Your task to perform on an android device: Open calendar and show me the second week of next month Image 0: 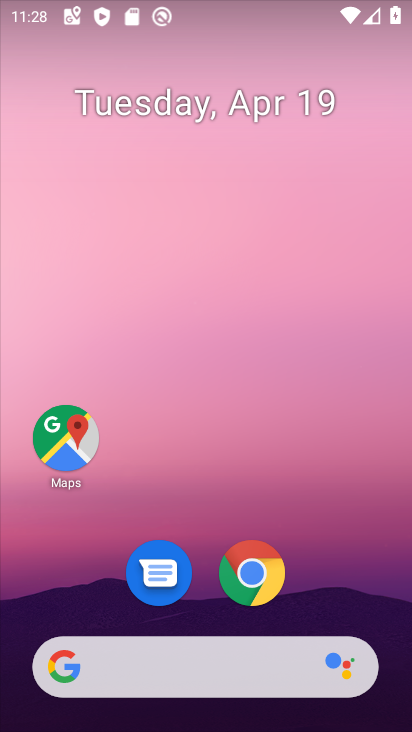
Step 0: drag from (322, 487) to (332, 143)
Your task to perform on an android device: Open calendar and show me the second week of next month Image 1: 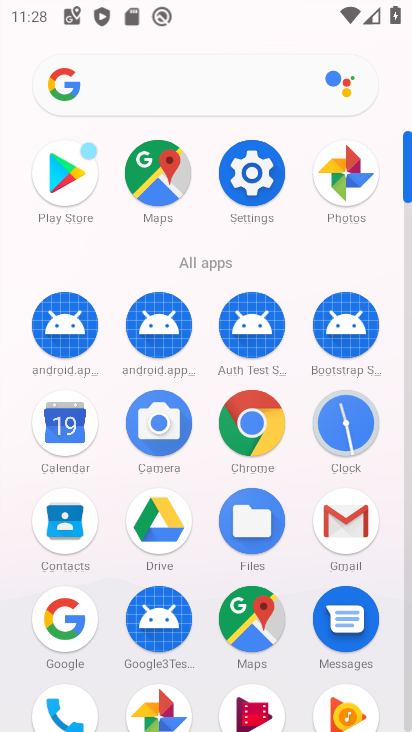
Step 1: click (73, 438)
Your task to perform on an android device: Open calendar and show me the second week of next month Image 2: 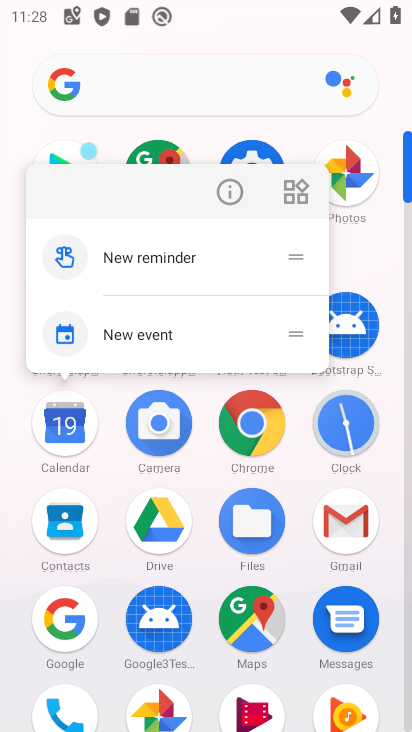
Step 2: click (79, 444)
Your task to perform on an android device: Open calendar and show me the second week of next month Image 3: 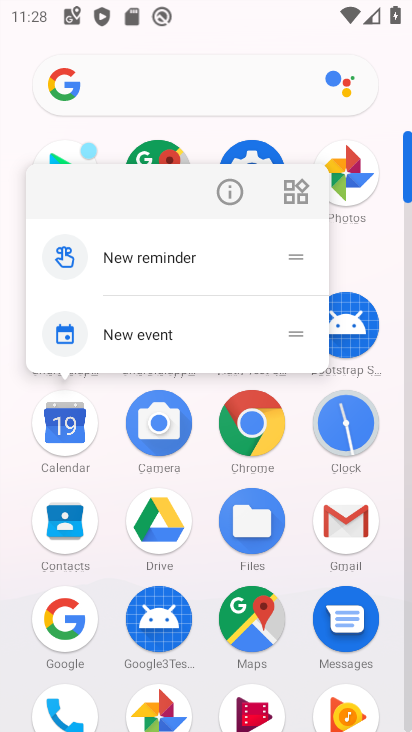
Step 3: click (58, 425)
Your task to perform on an android device: Open calendar and show me the second week of next month Image 4: 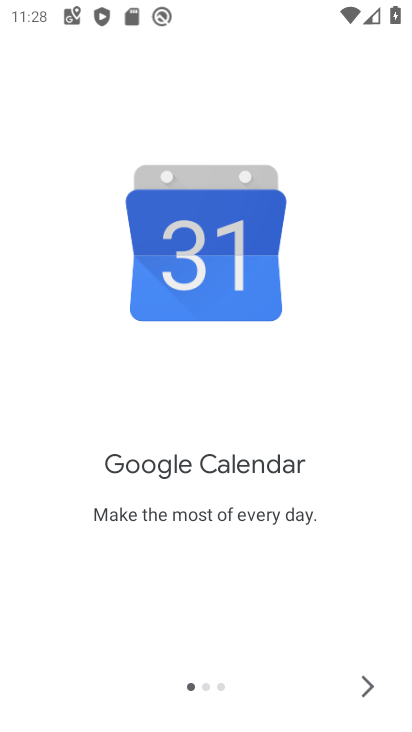
Step 4: click (369, 696)
Your task to perform on an android device: Open calendar and show me the second week of next month Image 5: 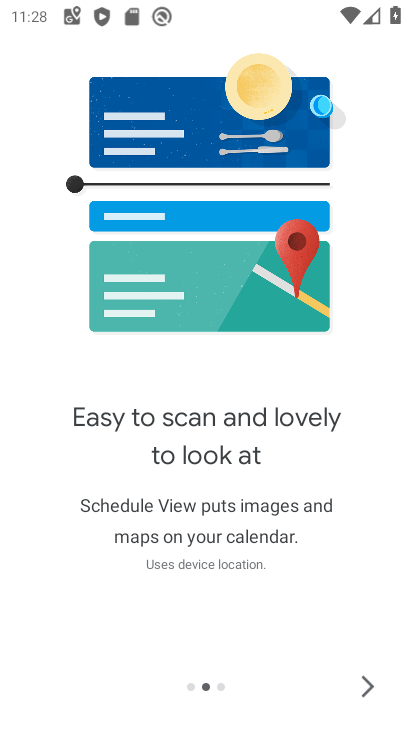
Step 5: click (369, 696)
Your task to perform on an android device: Open calendar and show me the second week of next month Image 6: 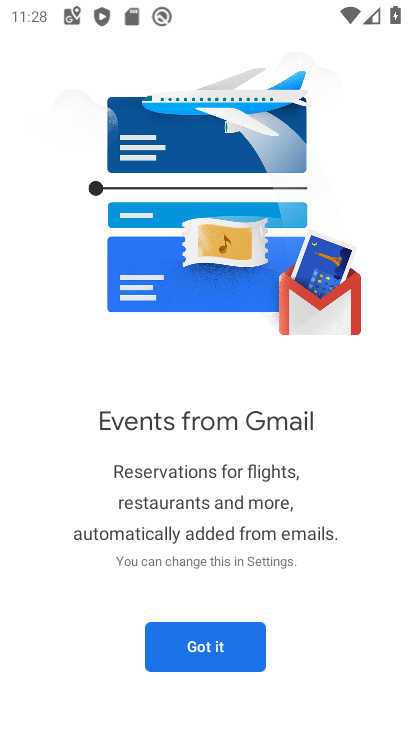
Step 6: click (239, 655)
Your task to perform on an android device: Open calendar and show me the second week of next month Image 7: 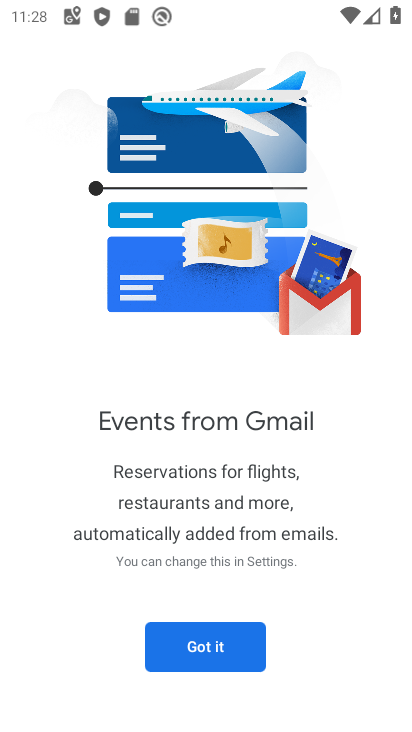
Step 7: click (214, 668)
Your task to perform on an android device: Open calendar and show me the second week of next month Image 8: 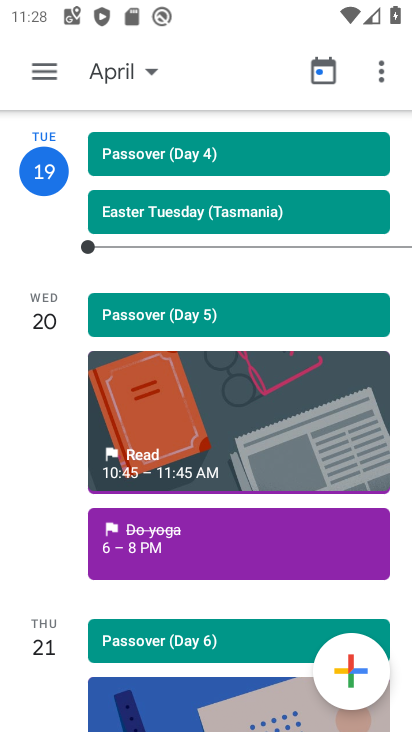
Step 8: click (122, 77)
Your task to perform on an android device: Open calendar and show me the second week of next month Image 9: 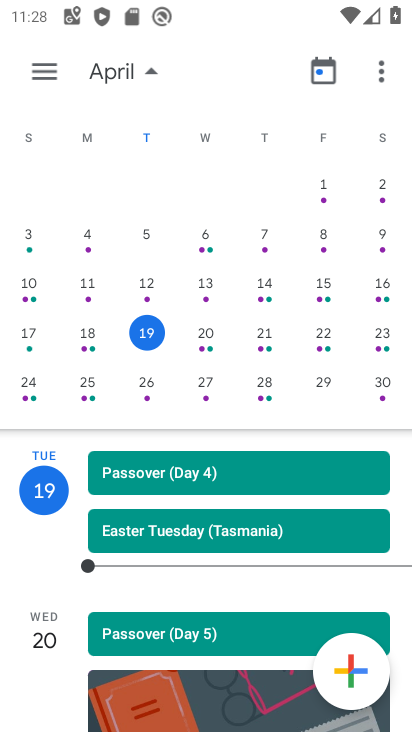
Step 9: drag from (366, 335) to (3, 271)
Your task to perform on an android device: Open calendar and show me the second week of next month Image 10: 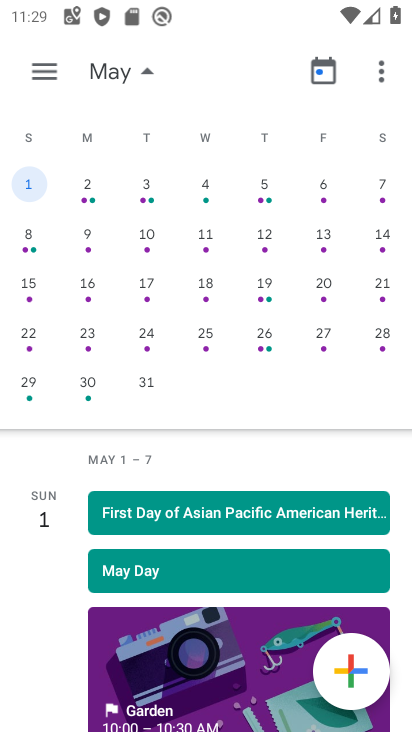
Step 10: click (38, 245)
Your task to perform on an android device: Open calendar and show me the second week of next month Image 11: 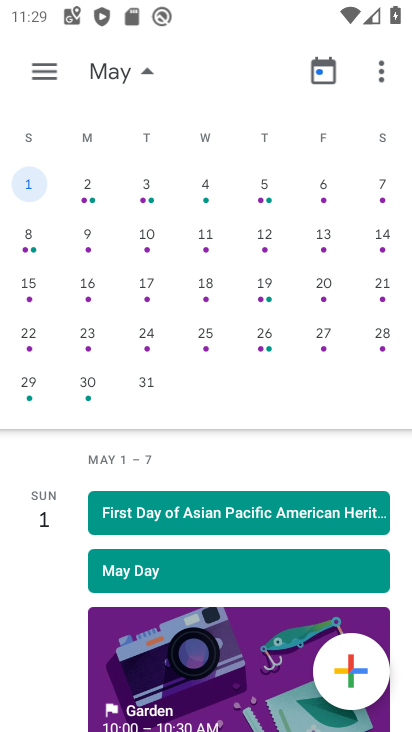
Step 11: click (86, 252)
Your task to perform on an android device: Open calendar and show me the second week of next month Image 12: 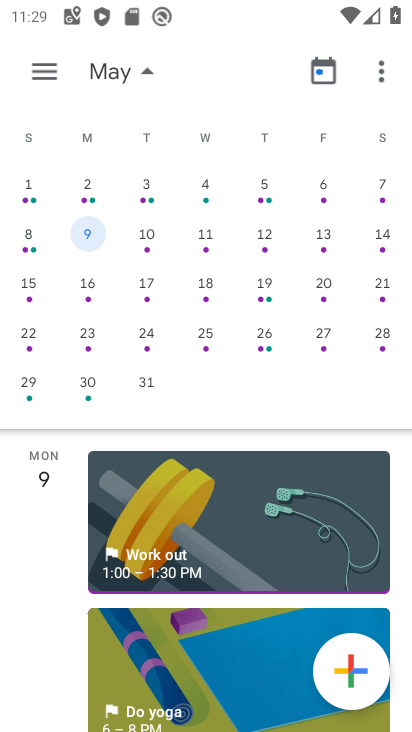
Step 12: click (155, 250)
Your task to perform on an android device: Open calendar and show me the second week of next month Image 13: 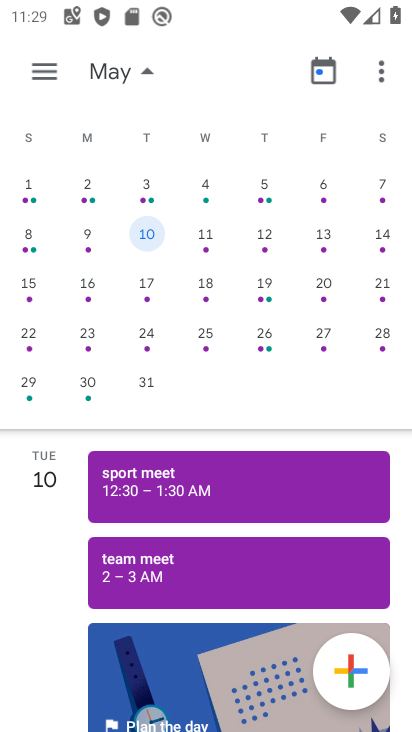
Step 13: click (202, 245)
Your task to perform on an android device: Open calendar and show me the second week of next month Image 14: 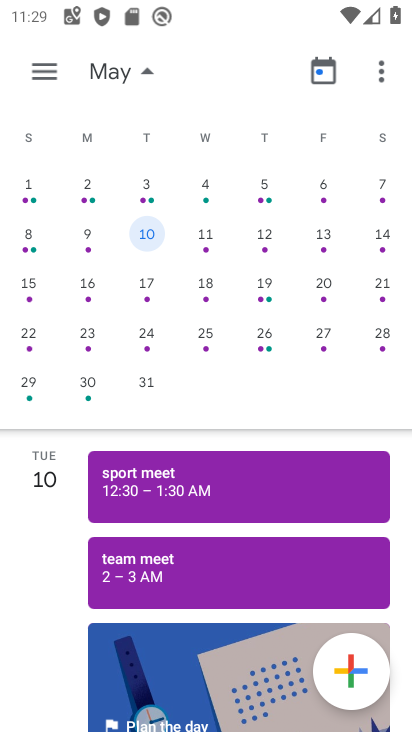
Step 14: click (270, 243)
Your task to perform on an android device: Open calendar and show me the second week of next month Image 15: 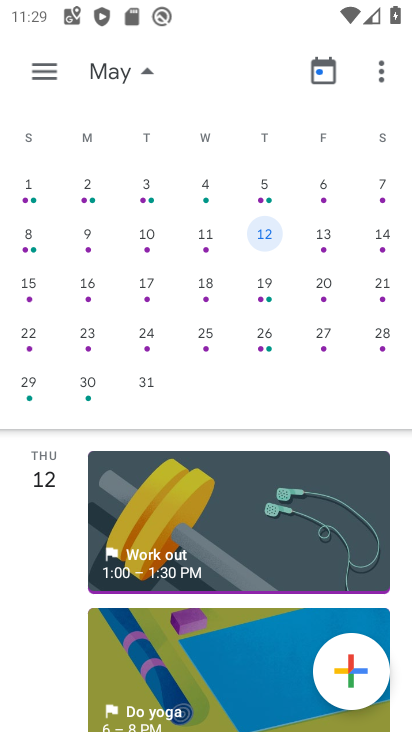
Step 15: click (327, 246)
Your task to perform on an android device: Open calendar and show me the second week of next month Image 16: 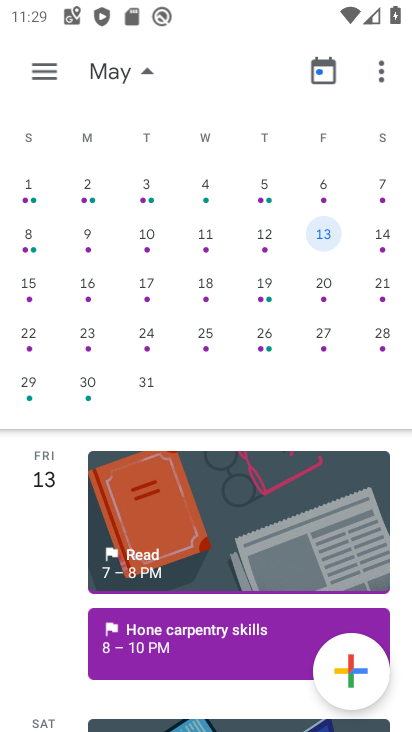
Step 16: click (383, 246)
Your task to perform on an android device: Open calendar and show me the second week of next month Image 17: 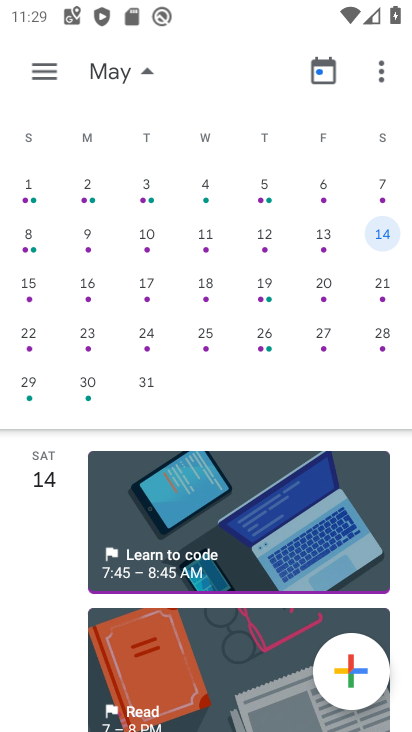
Step 17: task complete